Your task to perform on an android device: Open Youtube and go to "Your channel" Image 0: 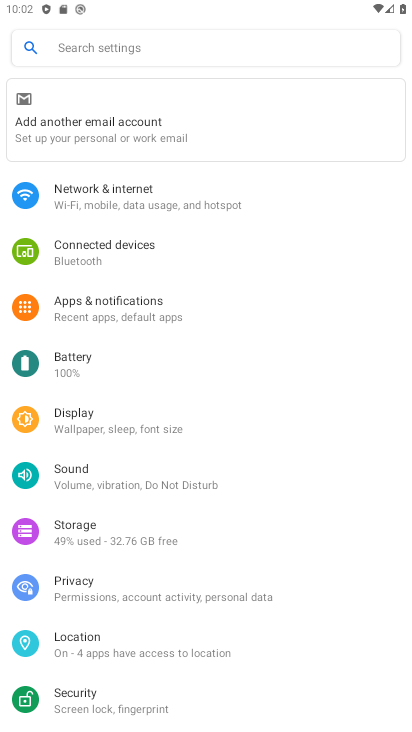
Step 0: press home button
Your task to perform on an android device: Open Youtube and go to "Your channel" Image 1: 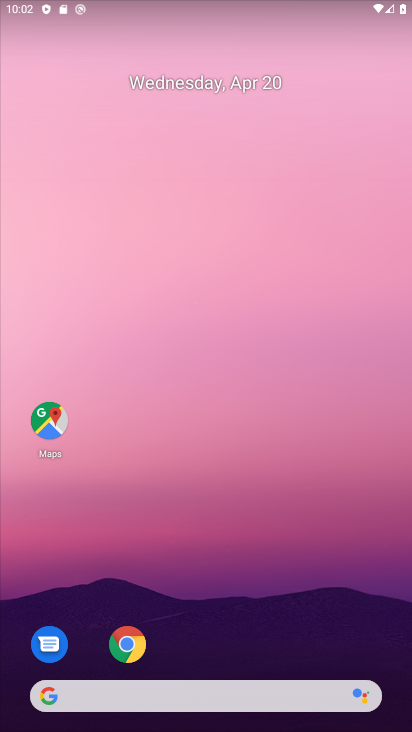
Step 1: drag from (241, 232) to (241, 42)
Your task to perform on an android device: Open Youtube and go to "Your channel" Image 2: 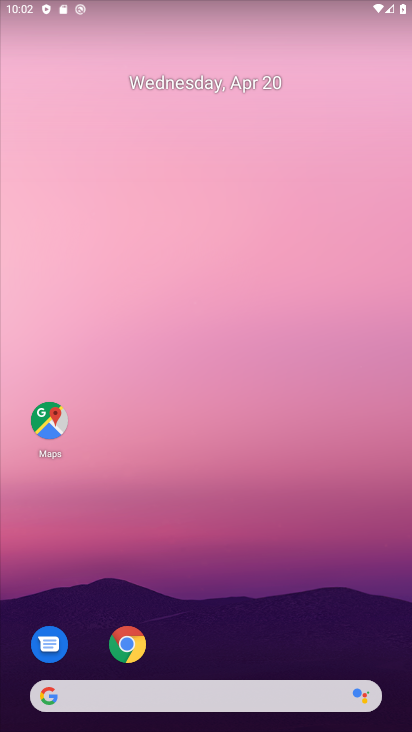
Step 2: drag from (202, 523) to (268, 9)
Your task to perform on an android device: Open Youtube and go to "Your channel" Image 3: 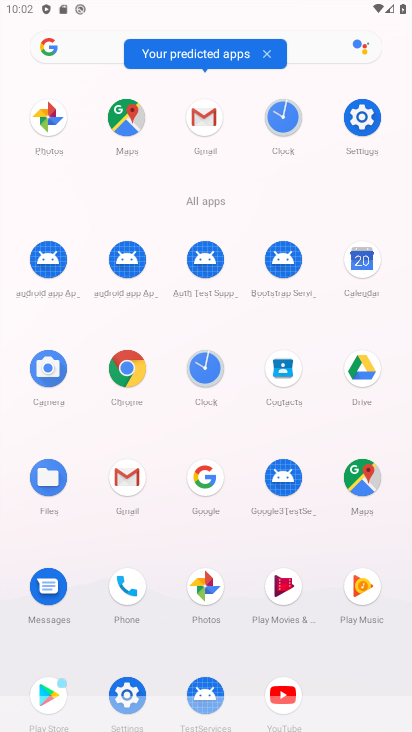
Step 3: click (281, 689)
Your task to perform on an android device: Open Youtube and go to "Your channel" Image 4: 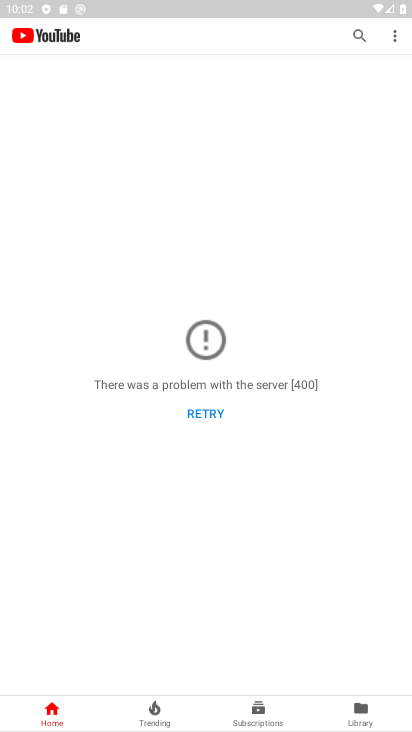
Step 4: click (392, 26)
Your task to perform on an android device: Open Youtube and go to "Your channel" Image 5: 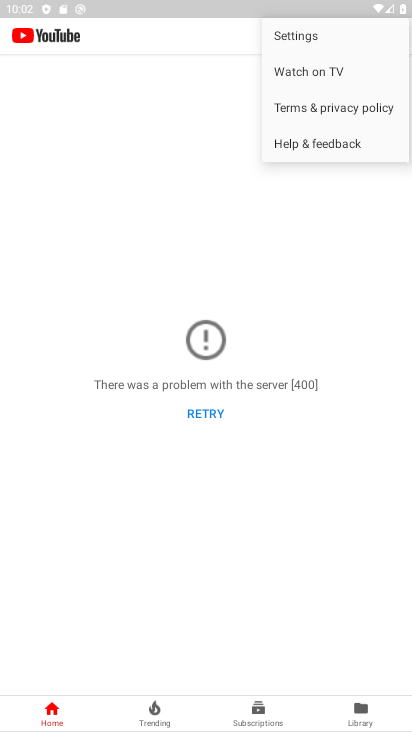
Step 5: click (315, 36)
Your task to perform on an android device: Open Youtube and go to "Your channel" Image 6: 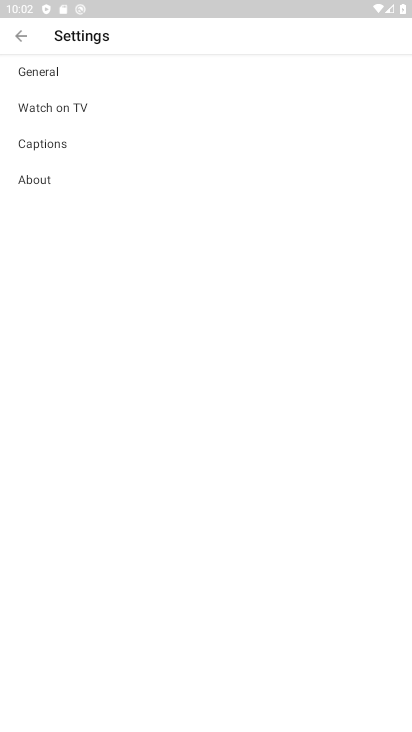
Step 6: task complete